Your task to perform on an android device: Open my contact list Image 0: 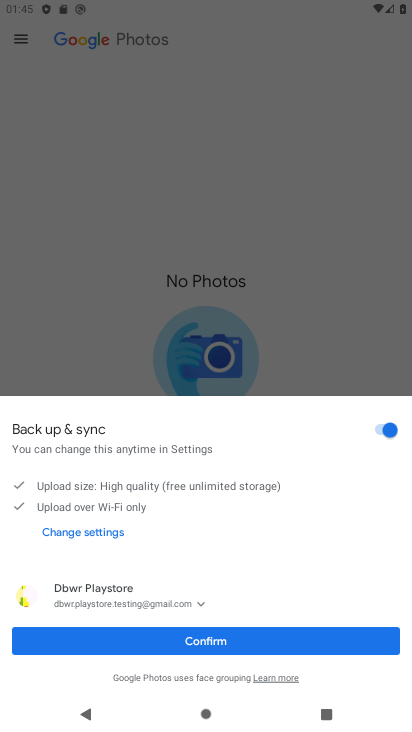
Step 0: press home button
Your task to perform on an android device: Open my contact list Image 1: 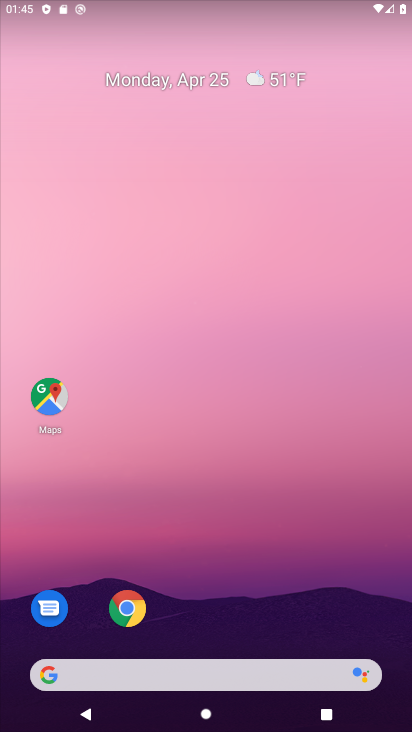
Step 1: drag from (209, 634) to (231, 0)
Your task to perform on an android device: Open my contact list Image 2: 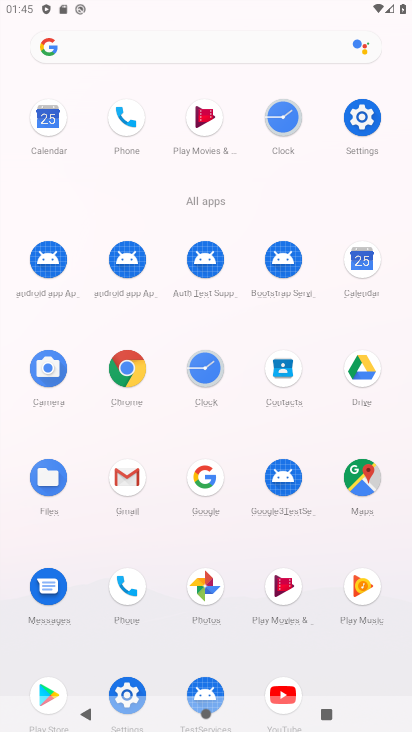
Step 2: click (283, 385)
Your task to perform on an android device: Open my contact list Image 3: 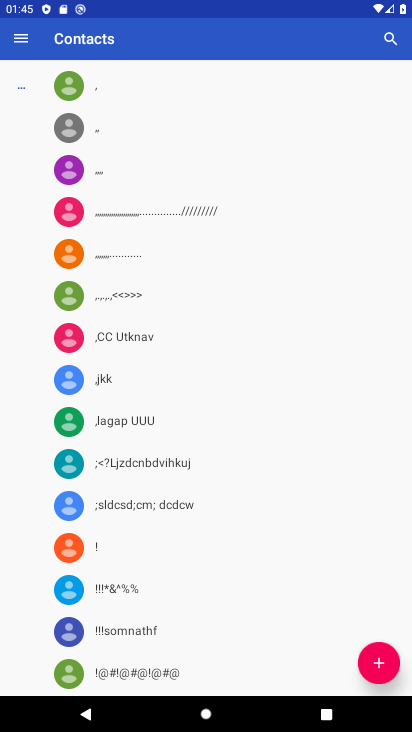
Step 3: task complete